Your task to perform on an android device: Go to Android settings Image 0: 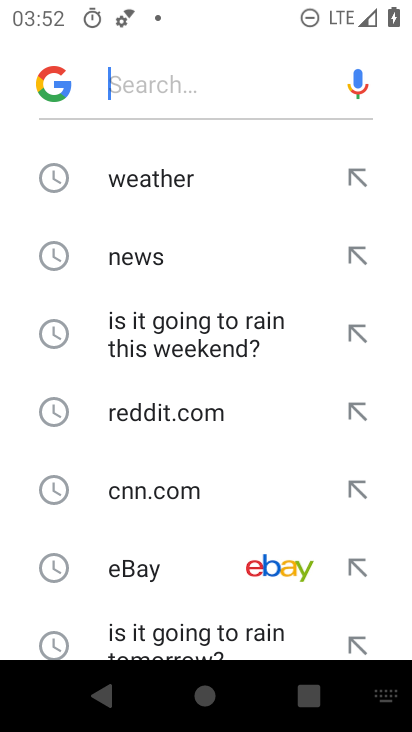
Step 0: press home button
Your task to perform on an android device: Go to Android settings Image 1: 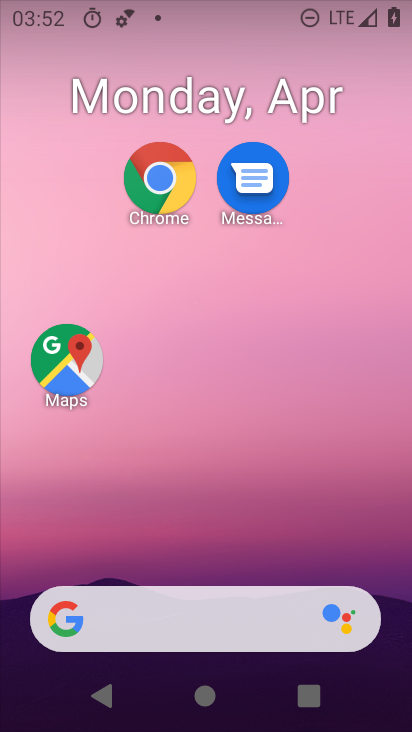
Step 1: drag from (339, 416) to (377, 34)
Your task to perform on an android device: Go to Android settings Image 2: 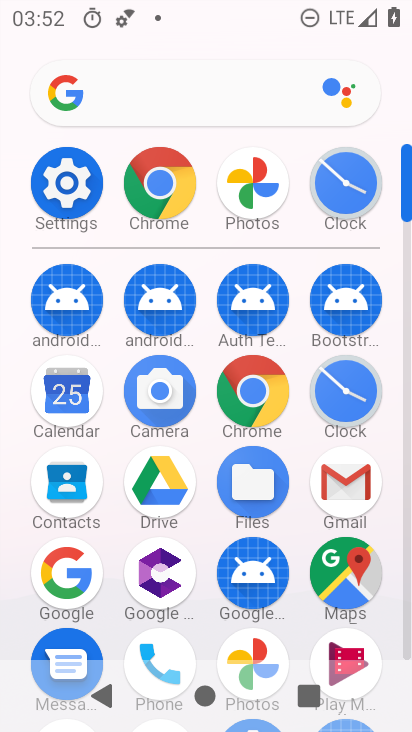
Step 2: drag from (184, 645) to (195, 185)
Your task to perform on an android device: Go to Android settings Image 3: 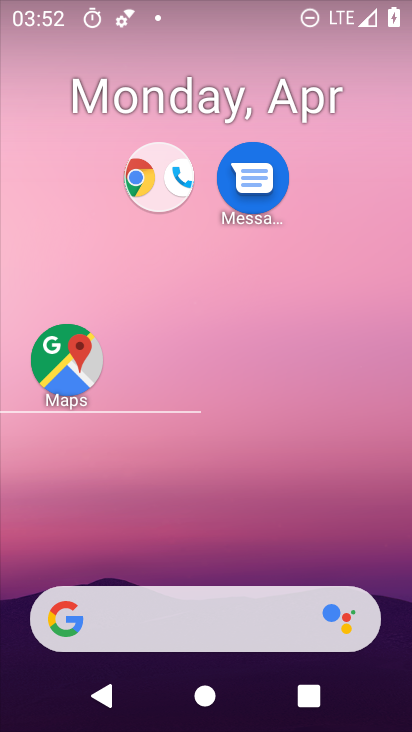
Step 3: click (274, 507)
Your task to perform on an android device: Go to Android settings Image 4: 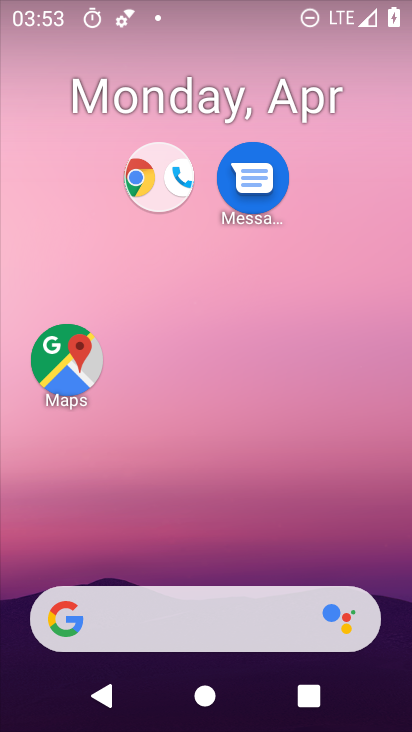
Step 4: drag from (309, 579) to (329, 0)
Your task to perform on an android device: Go to Android settings Image 5: 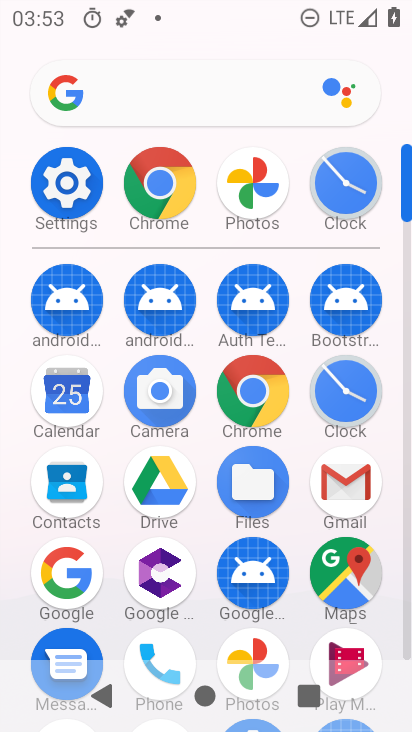
Step 5: drag from (305, 626) to (287, 206)
Your task to perform on an android device: Go to Android settings Image 6: 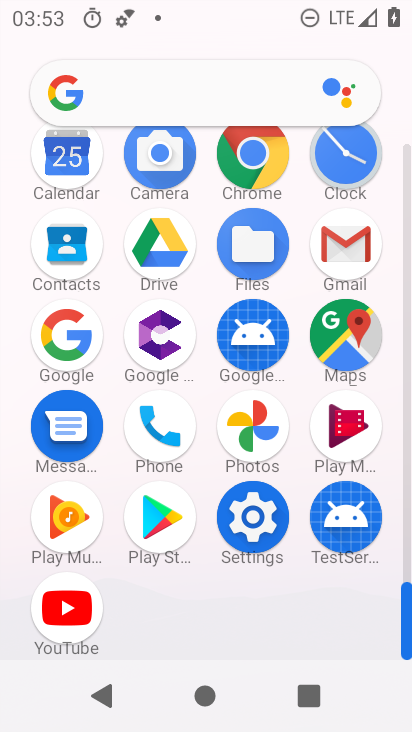
Step 6: click (257, 523)
Your task to perform on an android device: Go to Android settings Image 7: 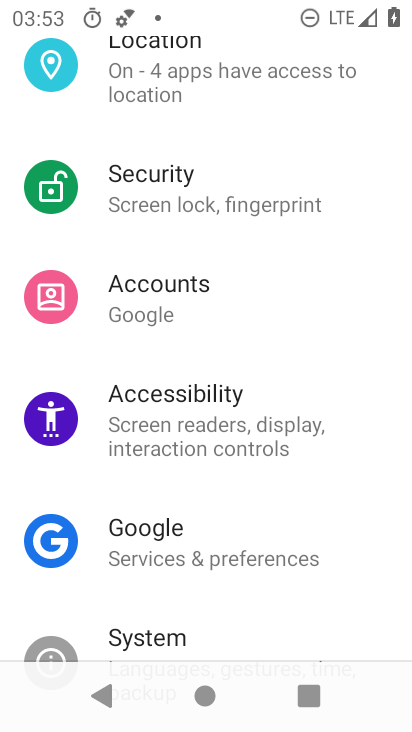
Step 7: drag from (279, 577) to (281, 112)
Your task to perform on an android device: Go to Android settings Image 8: 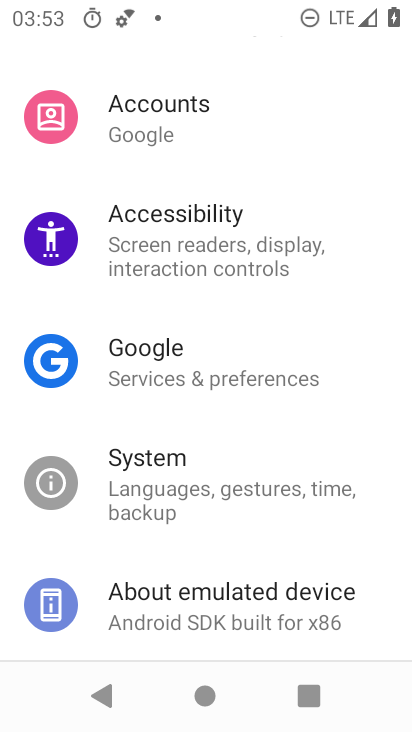
Step 8: click (293, 621)
Your task to perform on an android device: Go to Android settings Image 9: 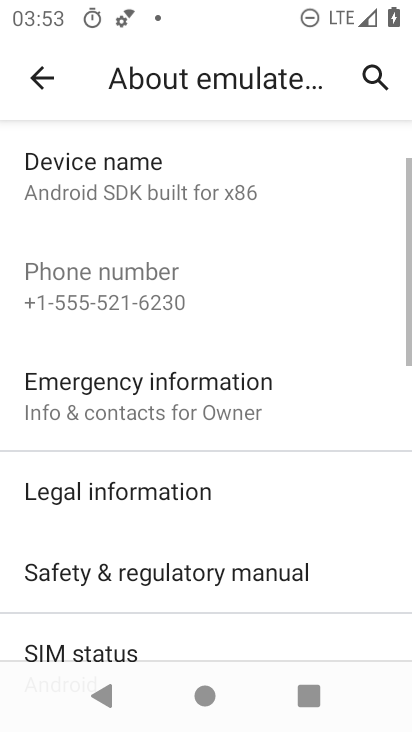
Step 9: drag from (293, 621) to (294, 154)
Your task to perform on an android device: Go to Android settings Image 10: 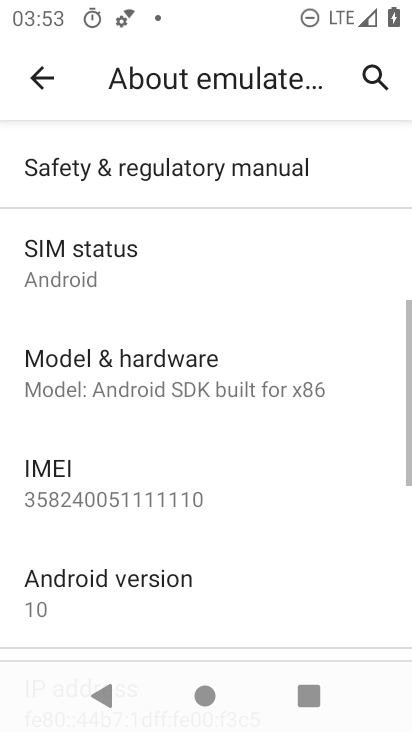
Step 10: click (244, 594)
Your task to perform on an android device: Go to Android settings Image 11: 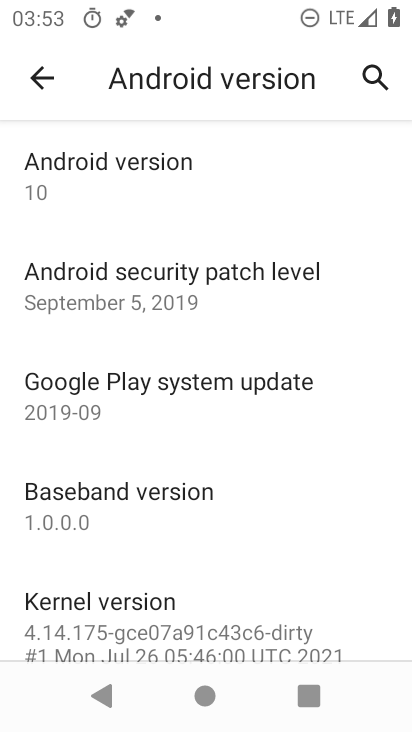
Step 11: task complete